Your task to perform on an android device: change keyboard looks Image 0: 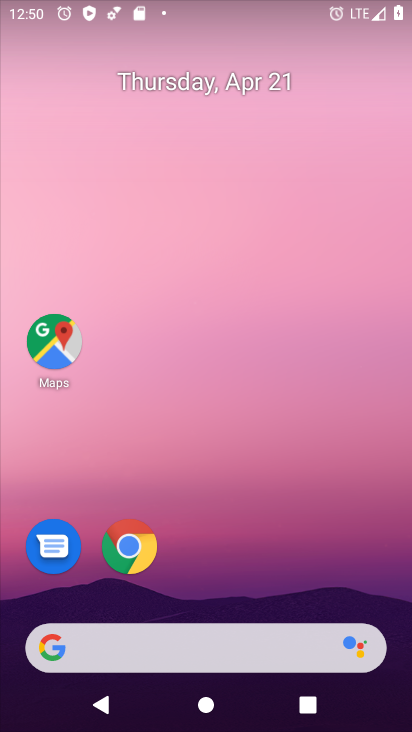
Step 0: drag from (267, 506) to (267, 81)
Your task to perform on an android device: change keyboard looks Image 1: 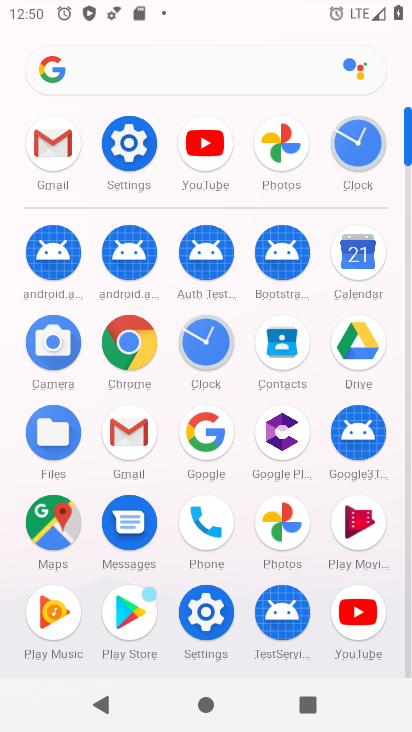
Step 1: click (134, 146)
Your task to perform on an android device: change keyboard looks Image 2: 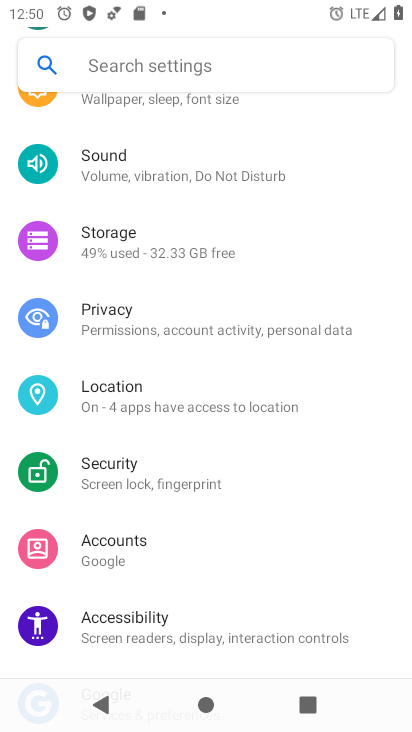
Step 2: drag from (210, 534) to (228, 200)
Your task to perform on an android device: change keyboard looks Image 3: 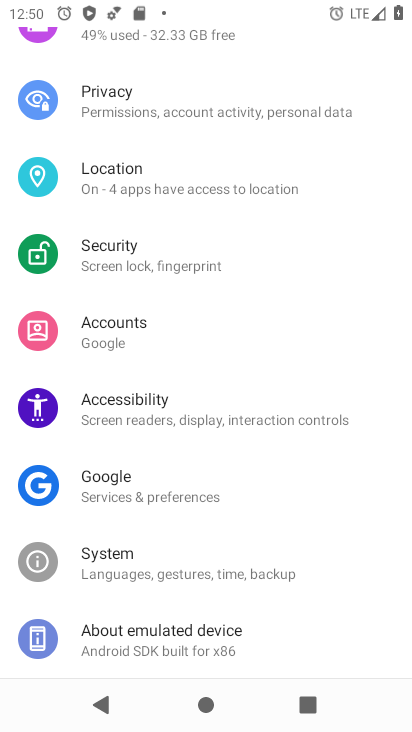
Step 3: click (138, 553)
Your task to perform on an android device: change keyboard looks Image 4: 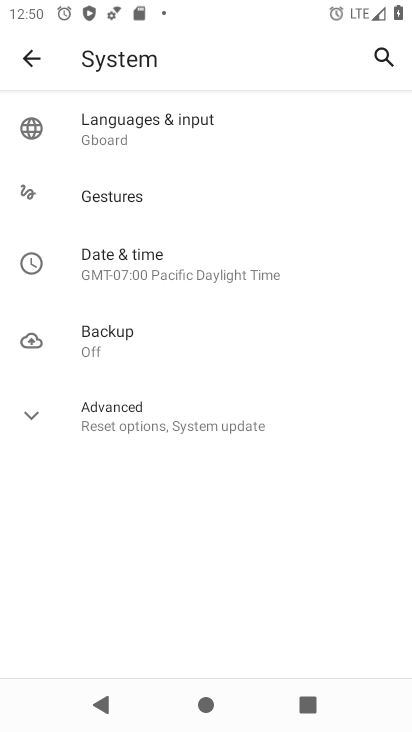
Step 4: click (121, 141)
Your task to perform on an android device: change keyboard looks Image 5: 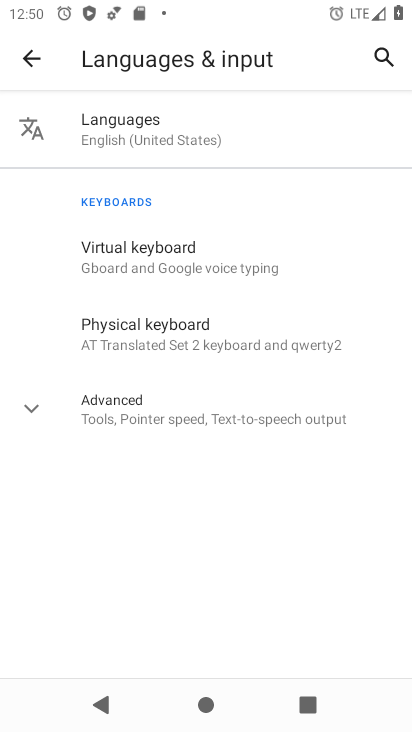
Step 5: click (98, 260)
Your task to perform on an android device: change keyboard looks Image 6: 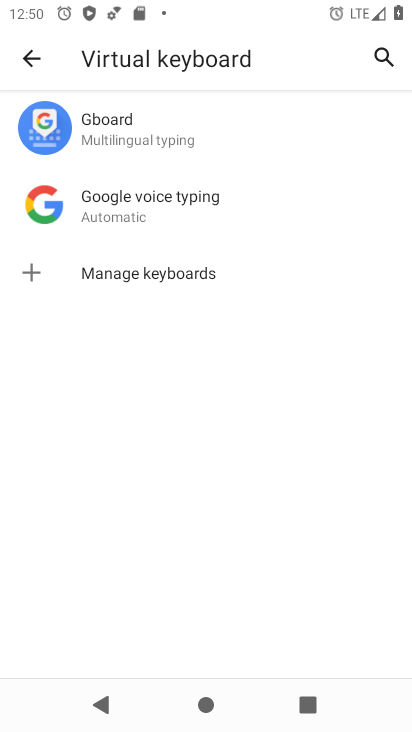
Step 6: click (119, 143)
Your task to perform on an android device: change keyboard looks Image 7: 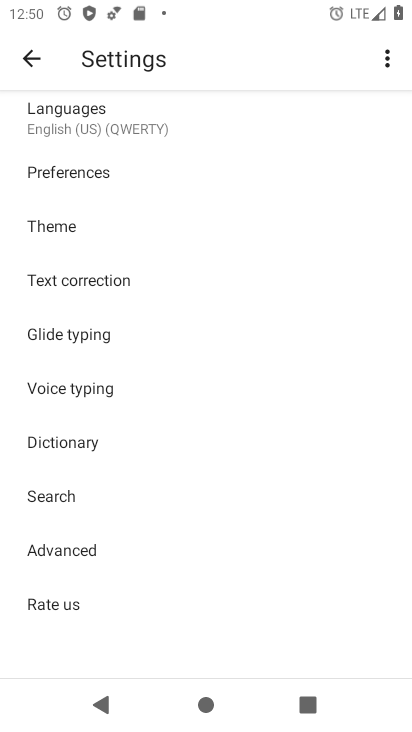
Step 7: click (113, 222)
Your task to perform on an android device: change keyboard looks Image 8: 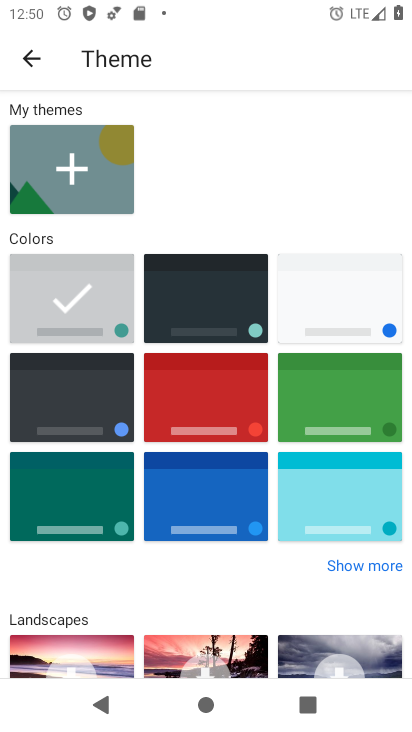
Step 8: click (234, 305)
Your task to perform on an android device: change keyboard looks Image 9: 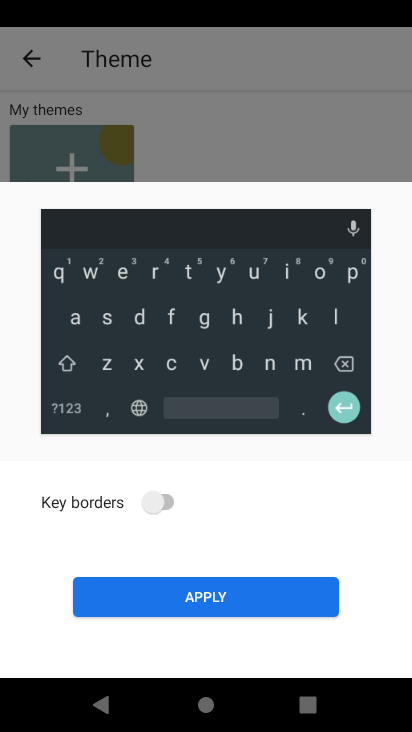
Step 9: click (160, 488)
Your task to perform on an android device: change keyboard looks Image 10: 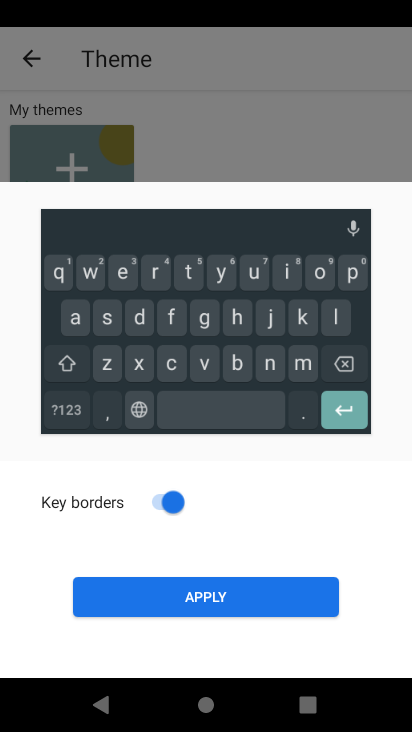
Step 10: click (185, 608)
Your task to perform on an android device: change keyboard looks Image 11: 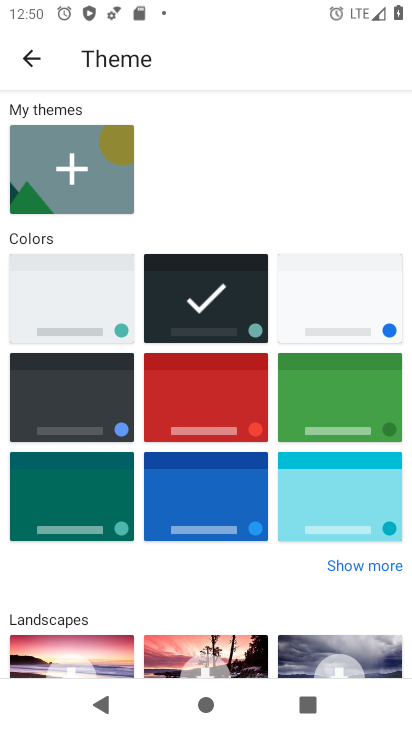
Step 11: task complete